Your task to perform on an android device: add a contact Image 0: 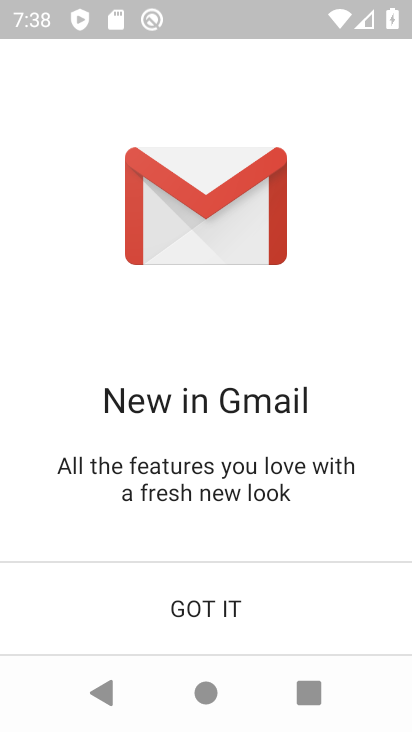
Step 0: press home button
Your task to perform on an android device: add a contact Image 1: 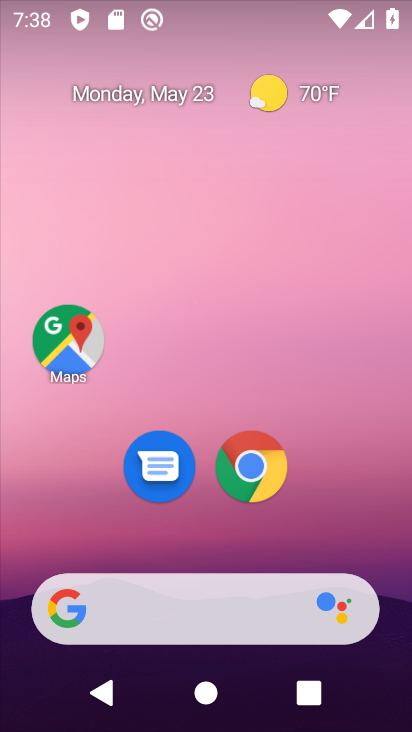
Step 1: drag from (198, 623) to (292, 9)
Your task to perform on an android device: add a contact Image 2: 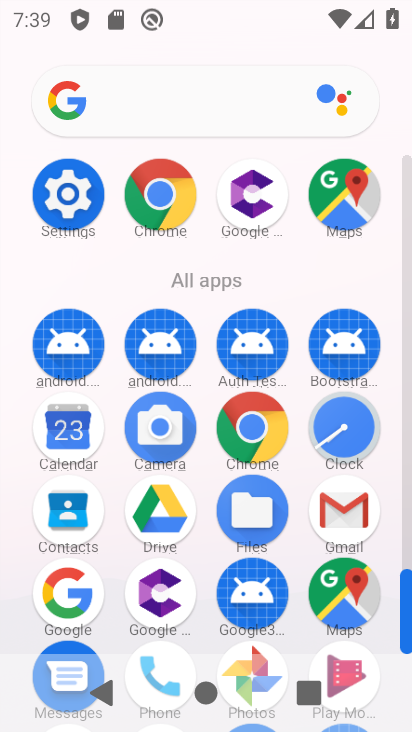
Step 2: click (77, 542)
Your task to perform on an android device: add a contact Image 3: 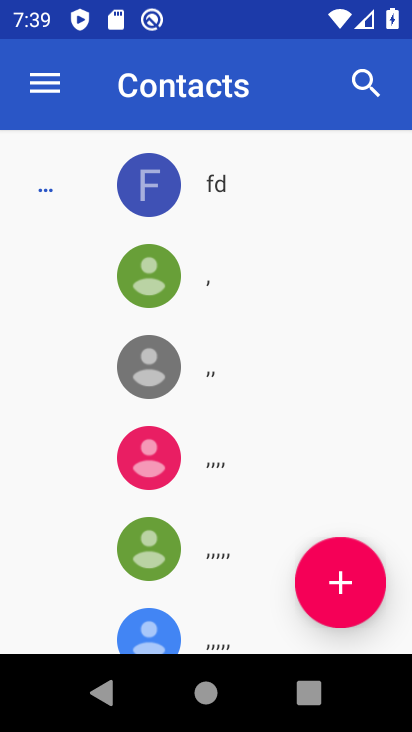
Step 3: click (350, 598)
Your task to perform on an android device: add a contact Image 4: 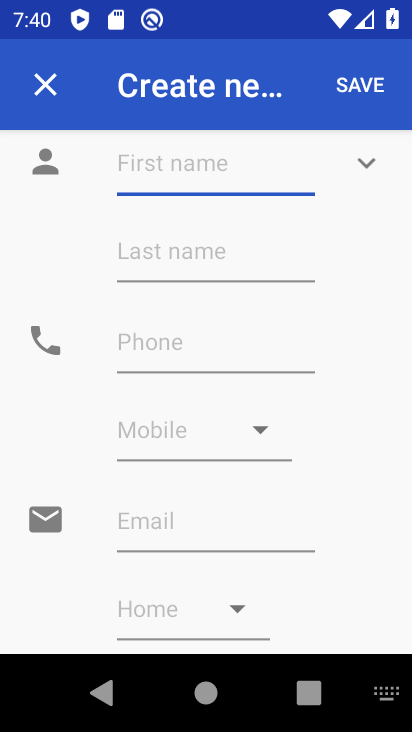
Step 4: type "gdjj"
Your task to perform on an android device: add a contact Image 5: 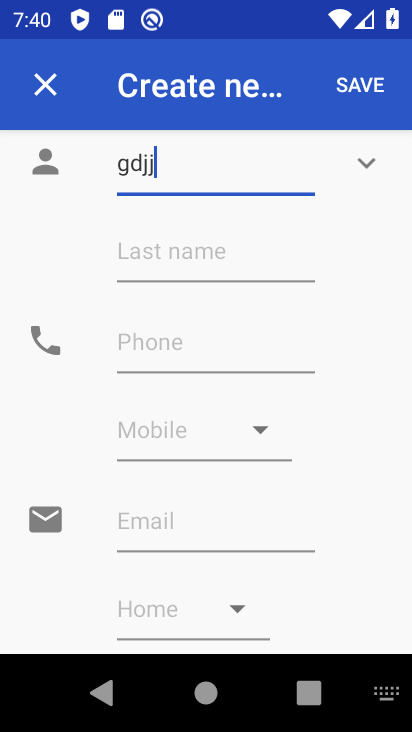
Step 5: click (195, 336)
Your task to perform on an android device: add a contact Image 6: 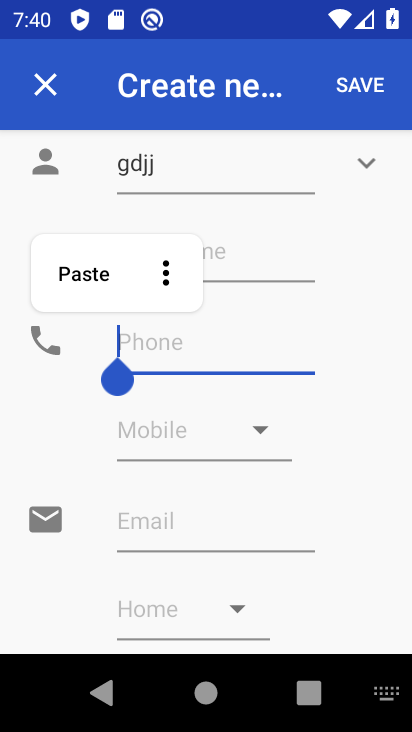
Step 6: type "87687456"
Your task to perform on an android device: add a contact Image 7: 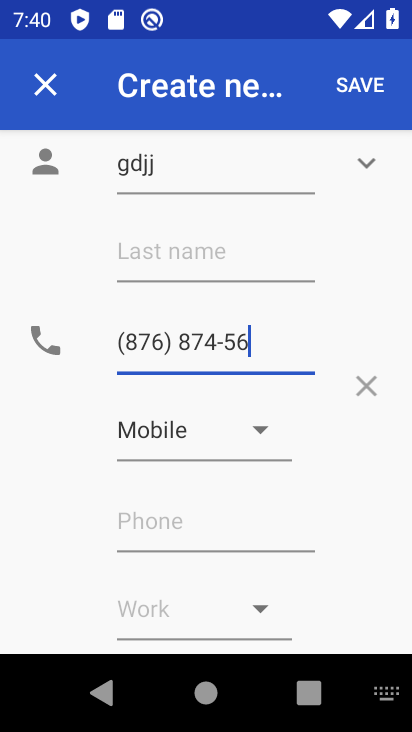
Step 7: click (372, 94)
Your task to perform on an android device: add a contact Image 8: 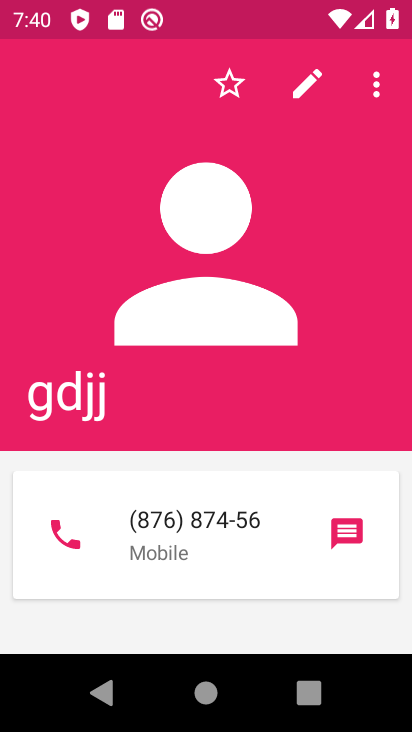
Step 8: task complete